Your task to perform on an android device: Open Chrome and go to the settings page Image 0: 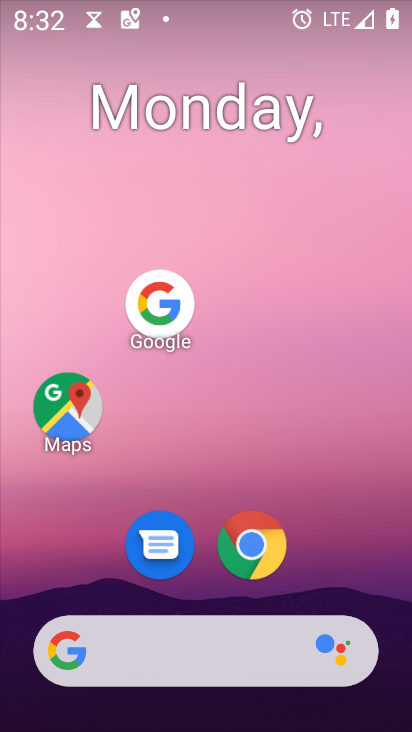
Step 0: press home button
Your task to perform on an android device: Open Chrome and go to the settings page Image 1: 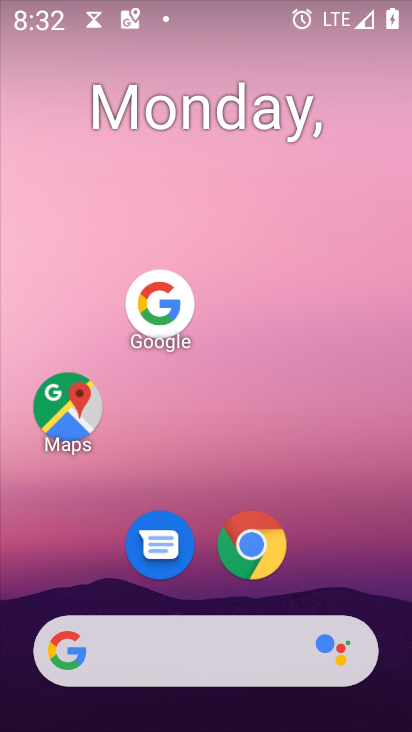
Step 1: click (252, 554)
Your task to perform on an android device: Open Chrome and go to the settings page Image 2: 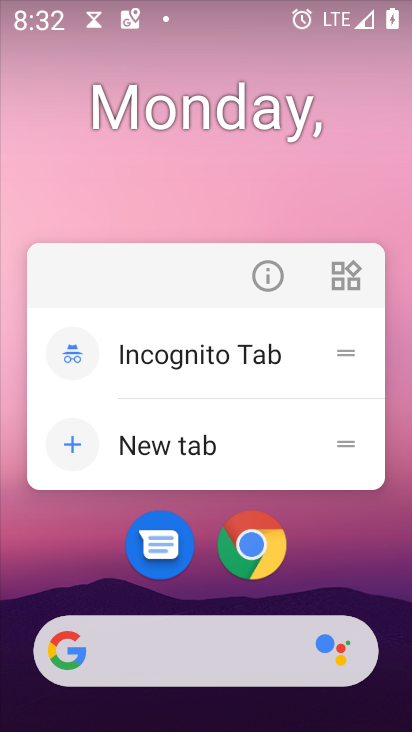
Step 2: click (254, 552)
Your task to perform on an android device: Open Chrome and go to the settings page Image 3: 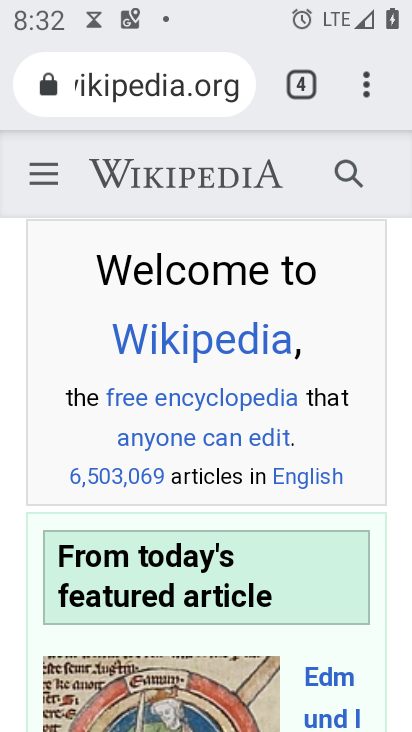
Step 3: task complete